Your task to perform on an android device: Go to notification settings Image 0: 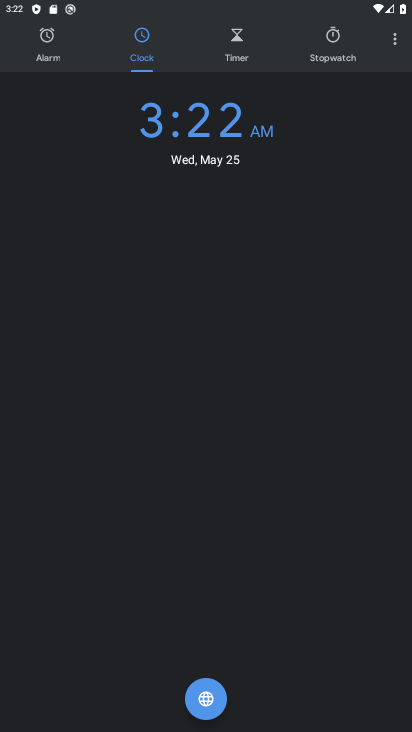
Step 0: press home button
Your task to perform on an android device: Go to notification settings Image 1: 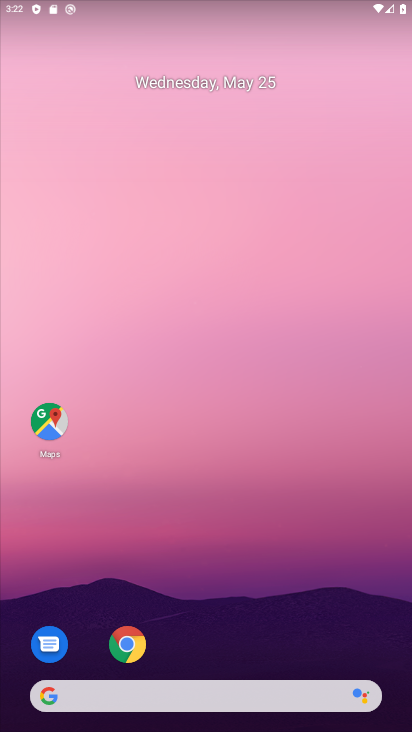
Step 1: drag from (310, 641) to (318, 7)
Your task to perform on an android device: Go to notification settings Image 2: 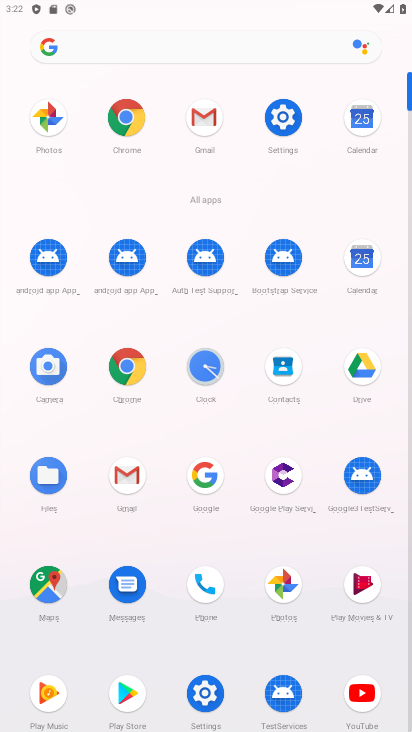
Step 2: click (280, 122)
Your task to perform on an android device: Go to notification settings Image 3: 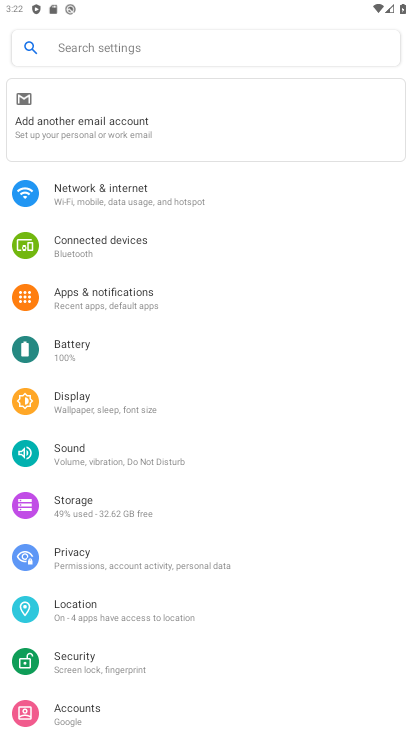
Step 3: click (106, 306)
Your task to perform on an android device: Go to notification settings Image 4: 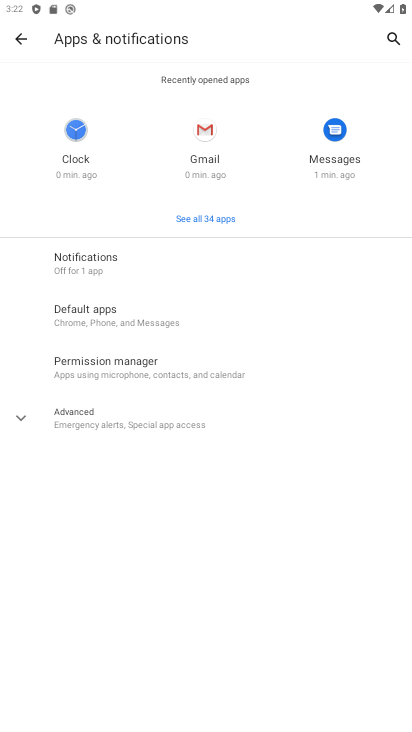
Step 4: task complete